Your task to perform on an android device: toggle notification dots Image 0: 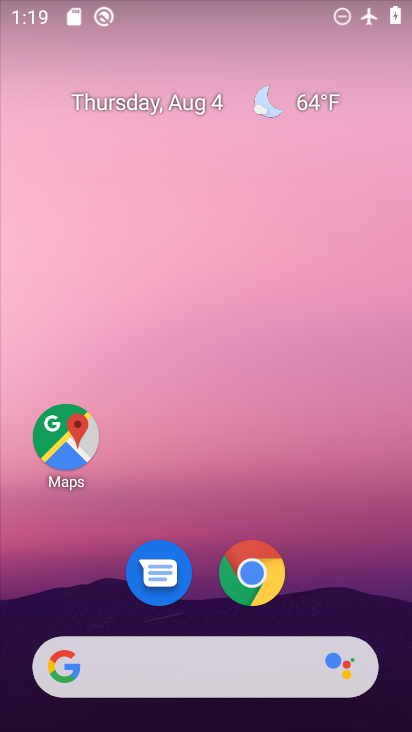
Step 0: drag from (367, 583) to (328, 104)
Your task to perform on an android device: toggle notification dots Image 1: 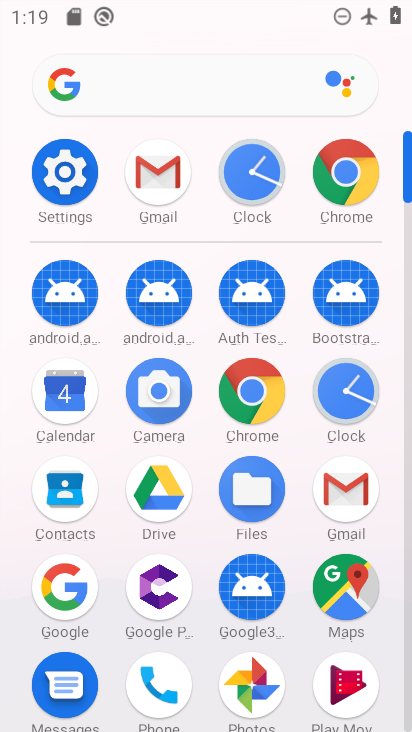
Step 1: click (76, 156)
Your task to perform on an android device: toggle notification dots Image 2: 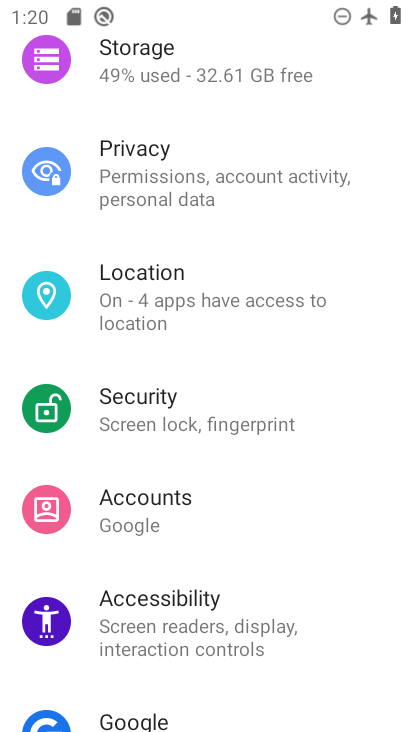
Step 2: drag from (240, 124) to (258, 569)
Your task to perform on an android device: toggle notification dots Image 3: 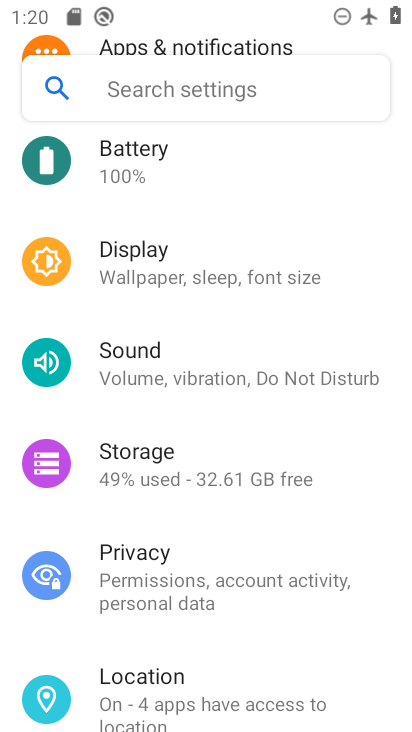
Step 3: drag from (253, 175) to (281, 625)
Your task to perform on an android device: toggle notification dots Image 4: 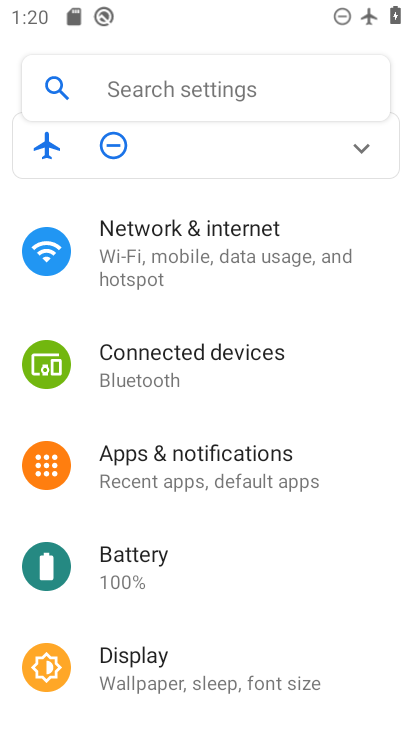
Step 4: click (235, 478)
Your task to perform on an android device: toggle notification dots Image 5: 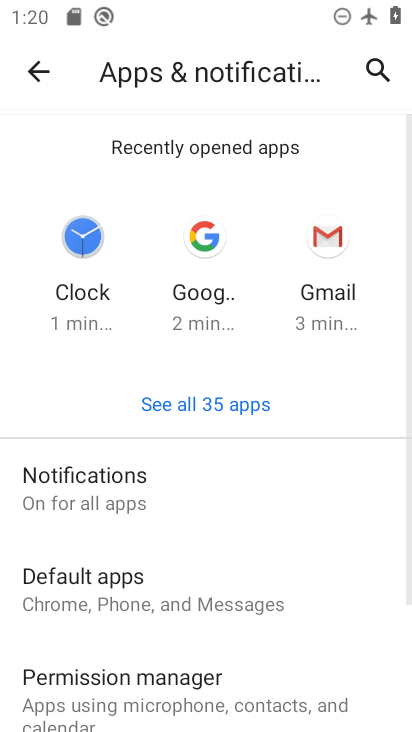
Step 5: click (113, 485)
Your task to perform on an android device: toggle notification dots Image 6: 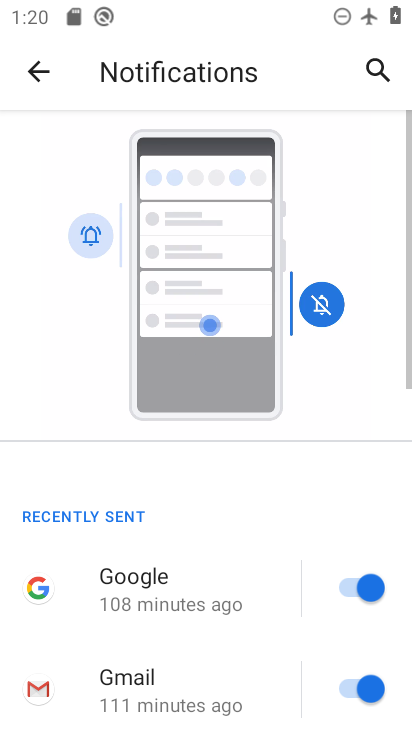
Step 6: drag from (290, 552) to (293, 130)
Your task to perform on an android device: toggle notification dots Image 7: 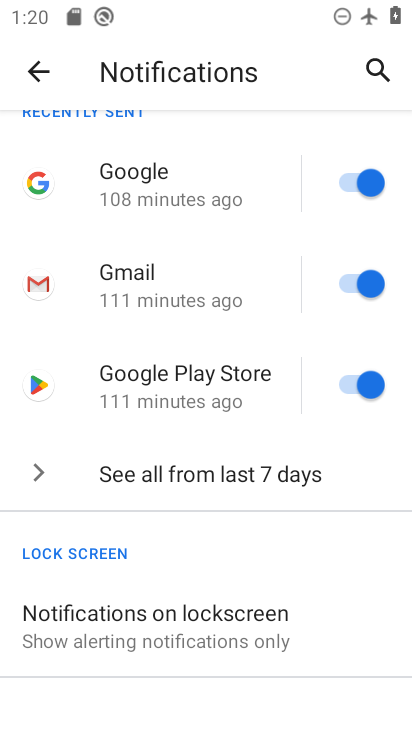
Step 7: drag from (316, 600) to (236, 129)
Your task to perform on an android device: toggle notification dots Image 8: 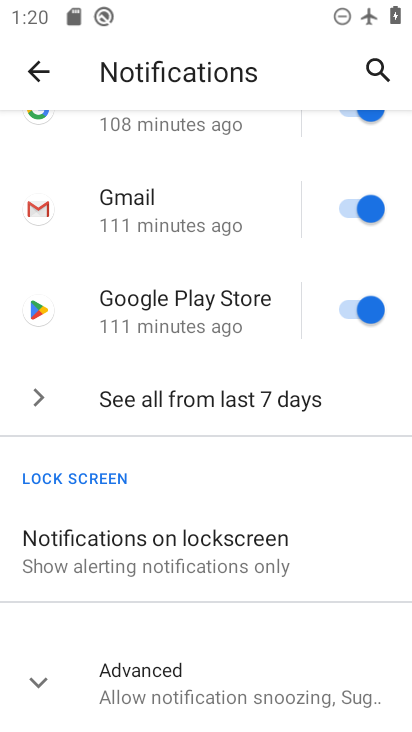
Step 8: click (152, 686)
Your task to perform on an android device: toggle notification dots Image 9: 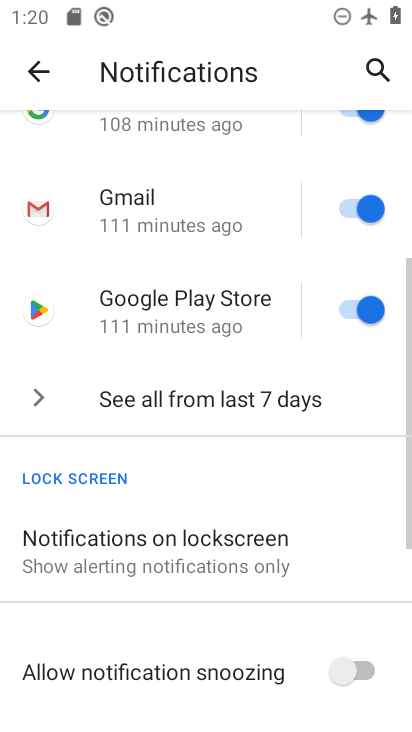
Step 9: drag from (238, 643) to (304, 207)
Your task to perform on an android device: toggle notification dots Image 10: 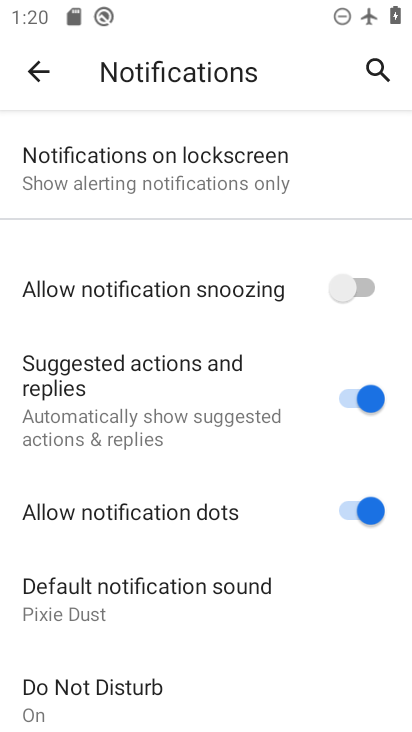
Step 10: click (344, 505)
Your task to perform on an android device: toggle notification dots Image 11: 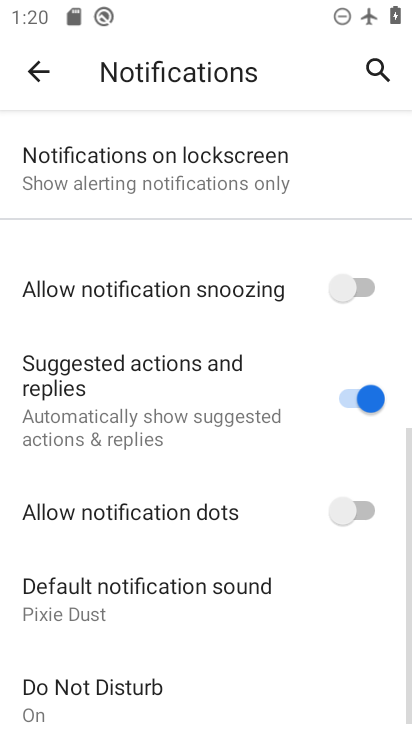
Step 11: task complete